Your task to perform on an android device: Open calendar and show me the third week of next month Image 0: 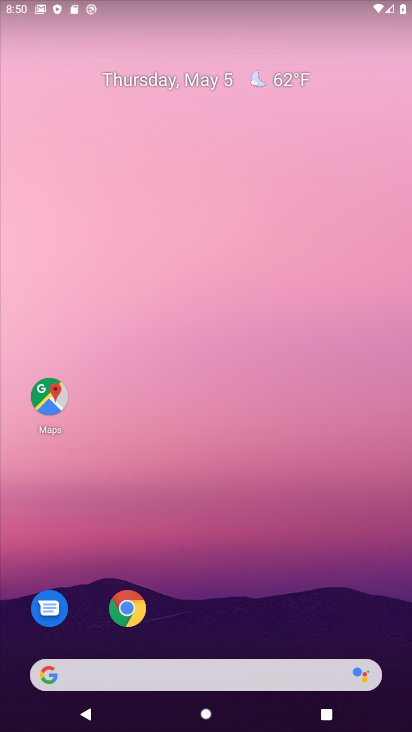
Step 0: drag from (234, 566) to (221, 32)
Your task to perform on an android device: Open calendar and show me the third week of next month Image 1: 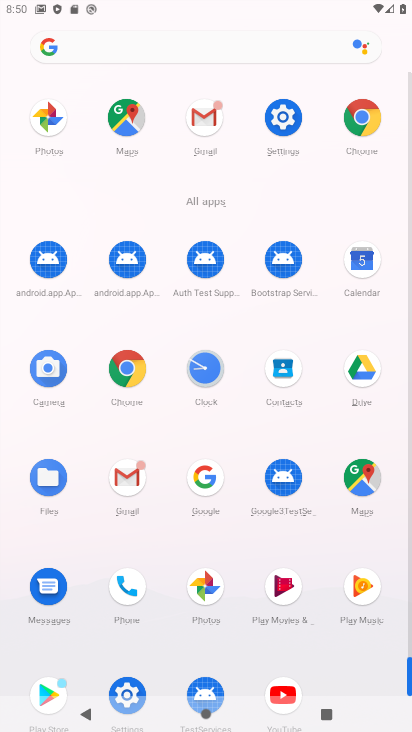
Step 1: drag from (6, 625) to (3, 411)
Your task to perform on an android device: Open calendar and show me the third week of next month Image 2: 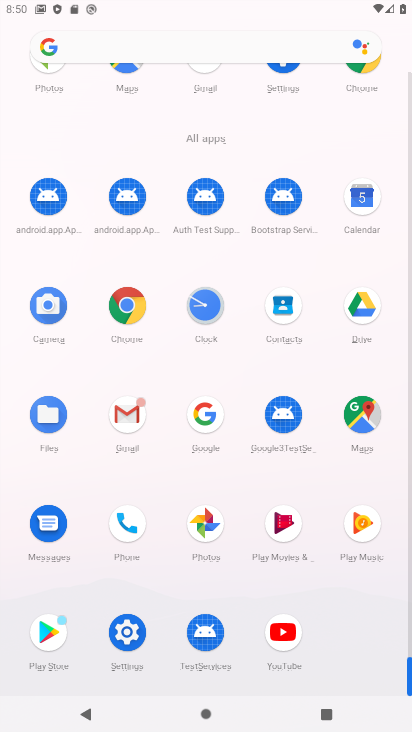
Step 2: drag from (12, 252) to (11, 521)
Your task to perform on an android device: Open calendar and show me the third week of next month Image 3: 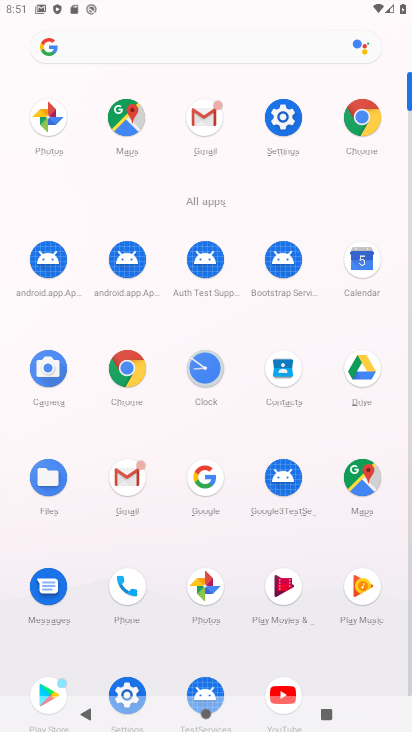
Step 3: click (361, 253)
Your task to perform on an android device: Open calendar and show me the third week of next month Image 4: 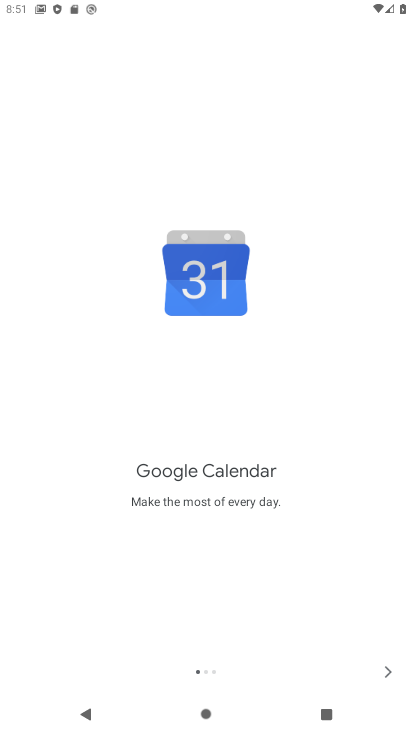
Step 4: click (385, 665)
Your task to perform on an android device: Open calendar and show me the third week of next month Image 5: 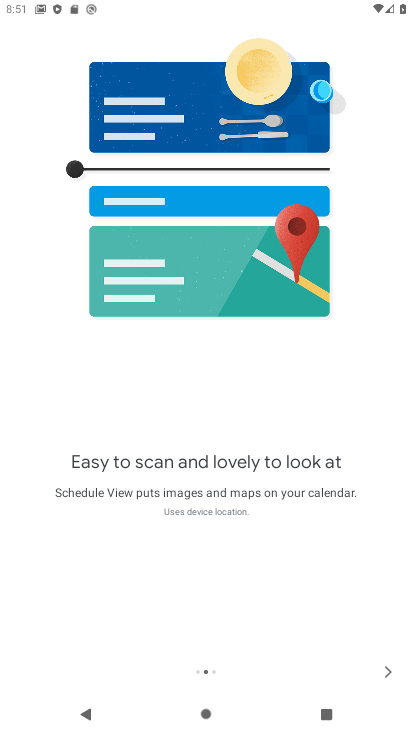
Step 5: click (385, 665)
Your task to perform on an android device: Open calendar and show me the third week of next month Image 6: 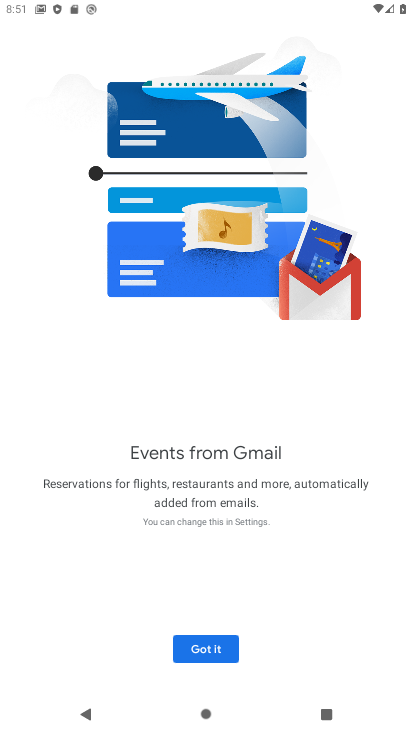
Step 6: click (222, 633)
Your task to perform on an android device: Open calendar and show me the third week of next month Image 7: 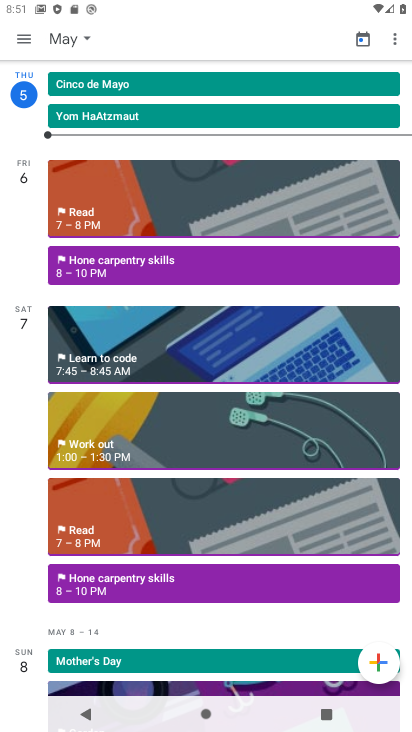
Step 7: click (70, 35)
Your task to perform on an android device: Open calendar and show me the third week of next month Image 8: 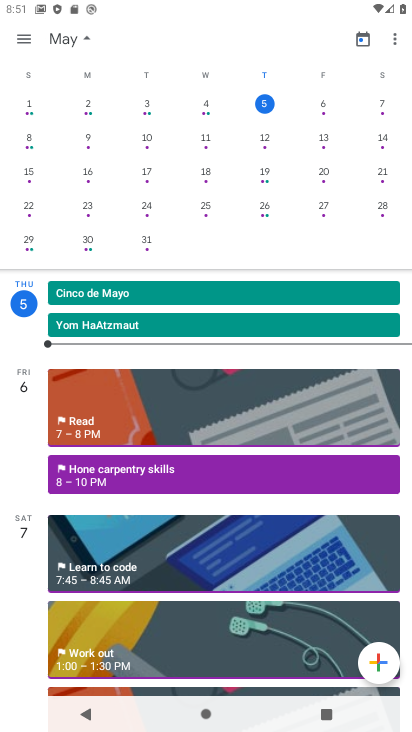
Step 8: drag from (396, 162) to (3, 174)
Your task to perform on an android device: Open calendar and show me the third week of next month Image 9: 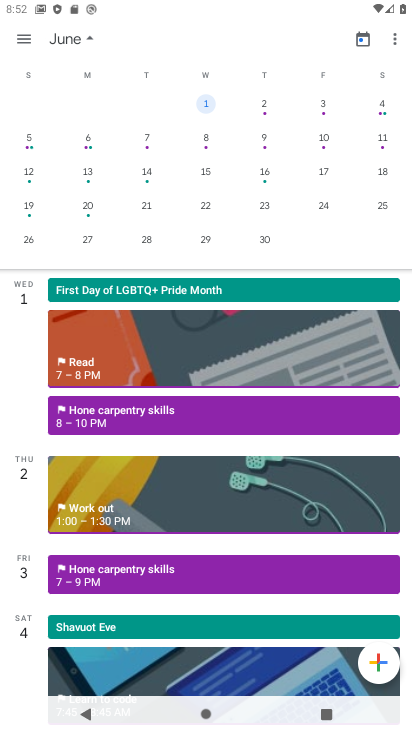
Step 9: click (31, 172)
Your task to perform on an android device: Open calendar and show me the third week of next month Image 10: 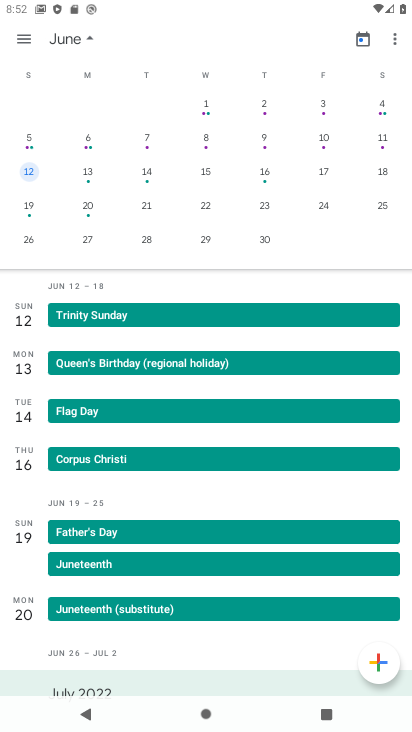
Step 10: click (24, 35)
Your task to perform on an android device: Open calendar and show me the third week of next month Image 11: 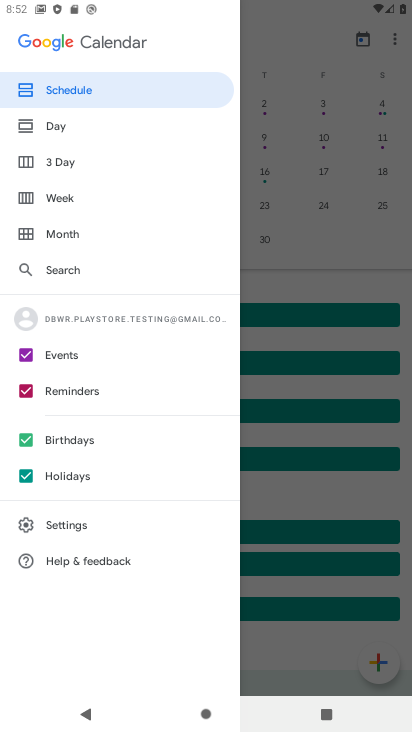
Step 11: click (70, 191)
Your task to perform on an android device: Open calendar and show me the third week of next month Image 12: 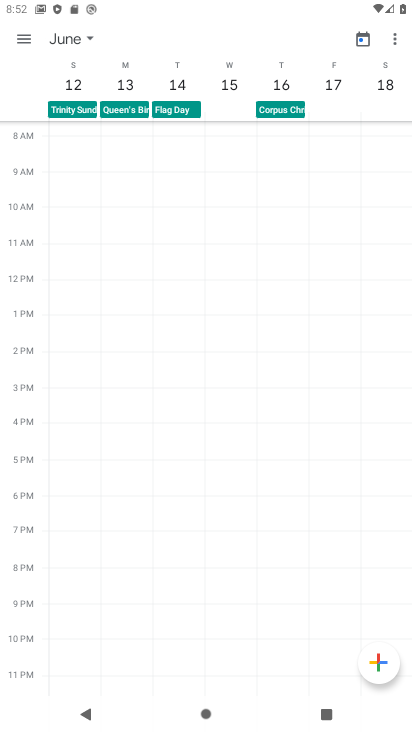
Step 12: task complete